Your task to perform on an android device: turn off priority inbox in the gmail app Image 0: 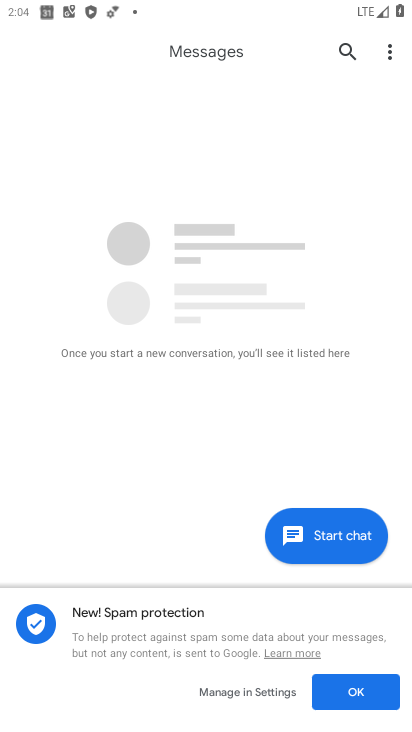
Step 0: press home button
Your task to perform on an android device: turn off priority inbox in the gmail app Image 1: 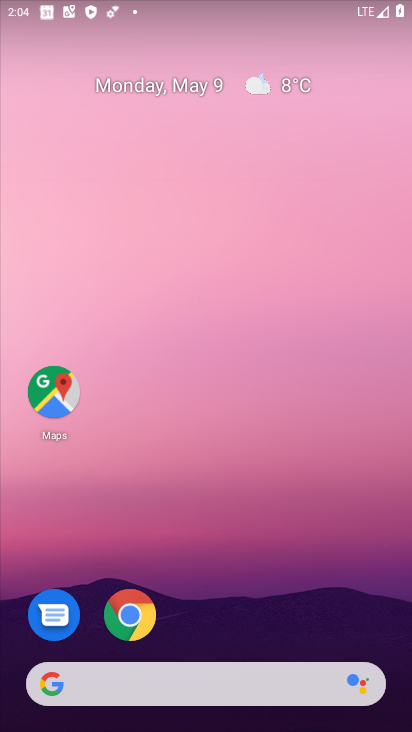
Step 1: drag from (370, 635) to (302, 207)
Your task to perform on an android device: turn off priority inbox in the gmail app Image 2: 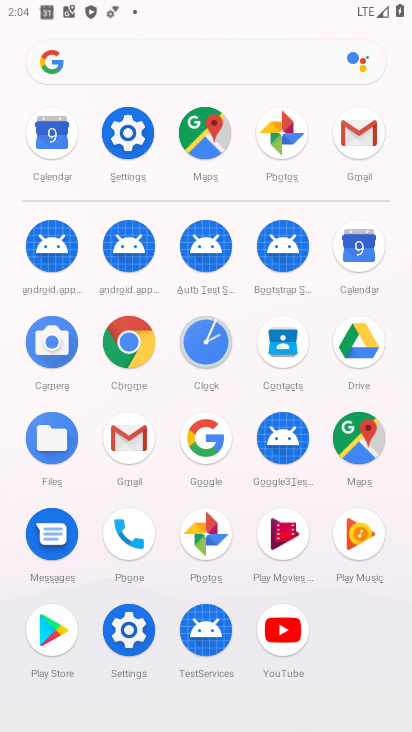
Step 2: click (131, 441)
Your task to perform on an android device: turn off priority inbox in the gmail app Image 3: 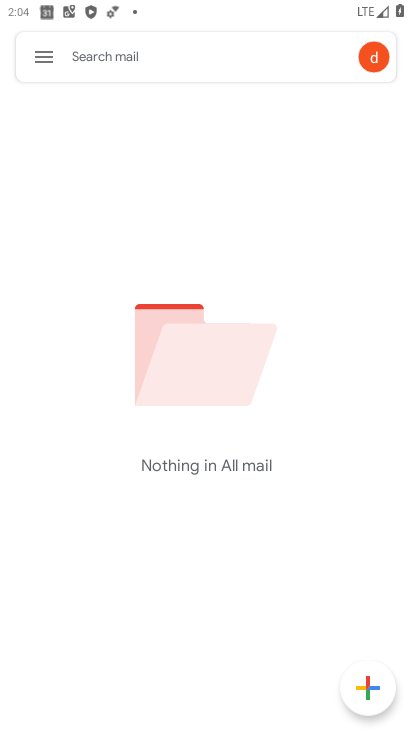
Step 3: click (38, 61)
Your task to perform on an android device: turn off priority inbox in the gmail app Image 4: 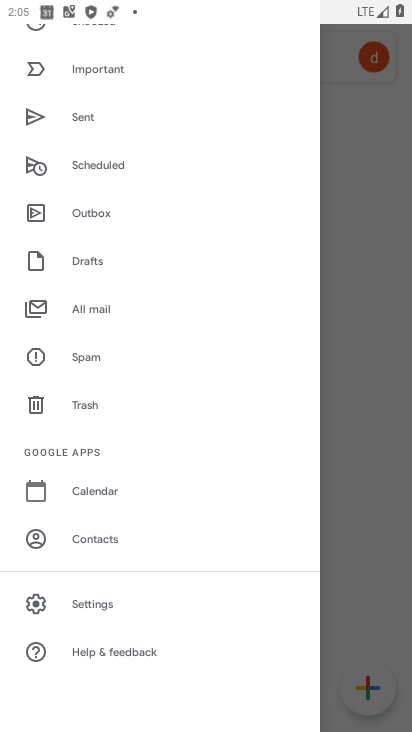
Step 4: click (89, 598)
Your task to perform on an android device: turn off priority inbox in the gmail app Image 5: 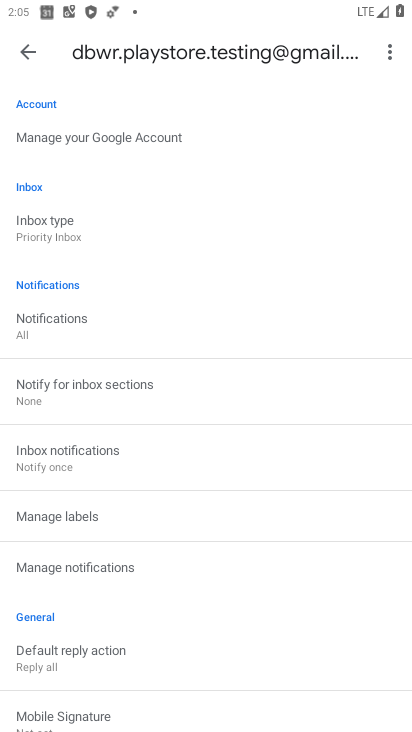
Step 5: click (50, 220)
Your task to perform on an android device: turn off priority inbox in the gmail app Image 6: 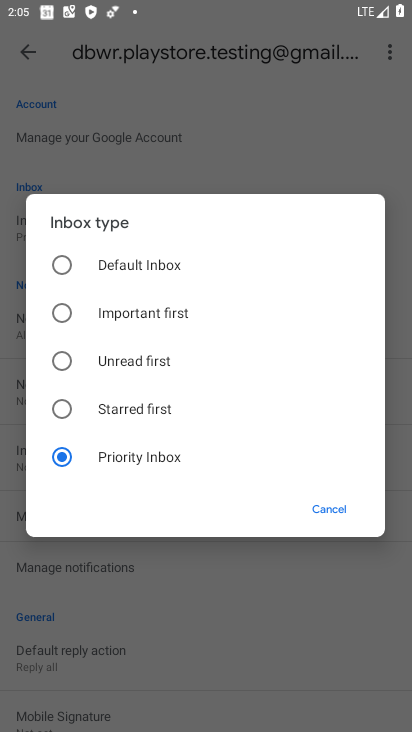
Step 6: click (55, 256)
Your task to perform on an android device: turn off priority inbox in the gmail app Image 7: 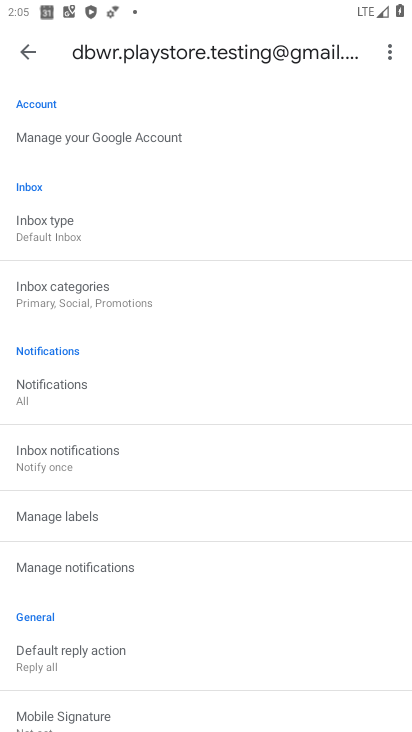
Step 7: task complete